Your task to perform on an android device: check out phone information Image 0: 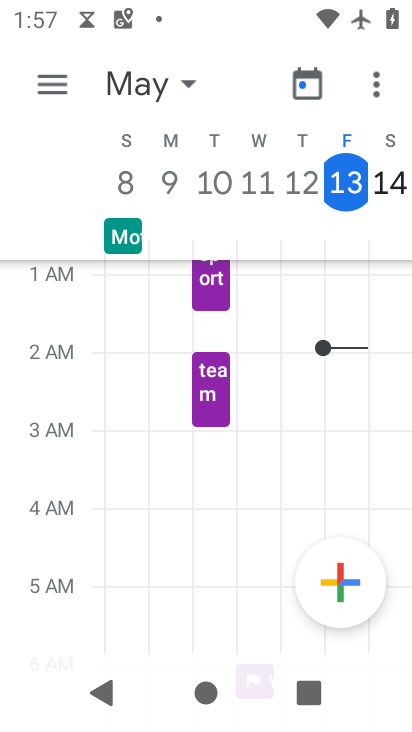
Step 0: press home button
Your task to perform on an android device: check out phone information Image 1: 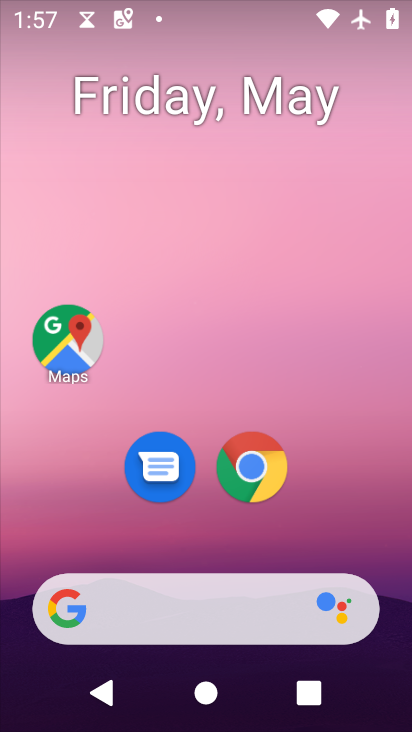
Step 1: drag from (333, 511) to (284, 122)
Your task to perform on an android device: check out phone information Image 2: 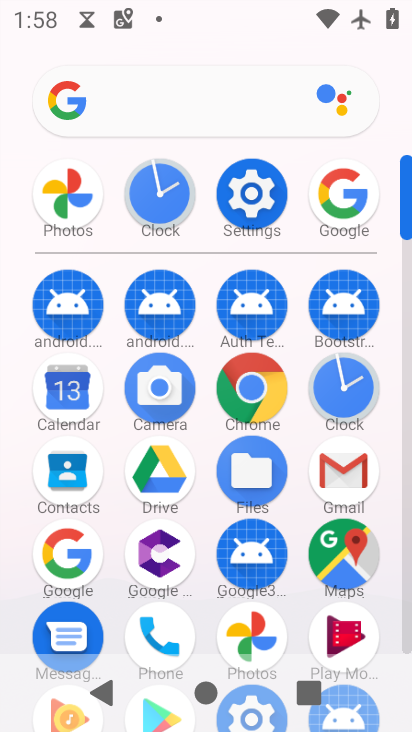
Step 2: click (255, 192)
Your task to perform on an android device: check out phone information Image 3: 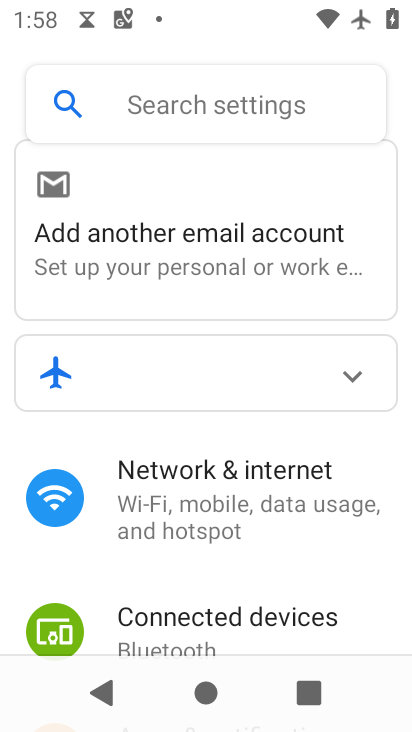
Step 3: drag from (269, 568) to (306, 279)
Your task to perform on an android device: check out phone information Image 4: 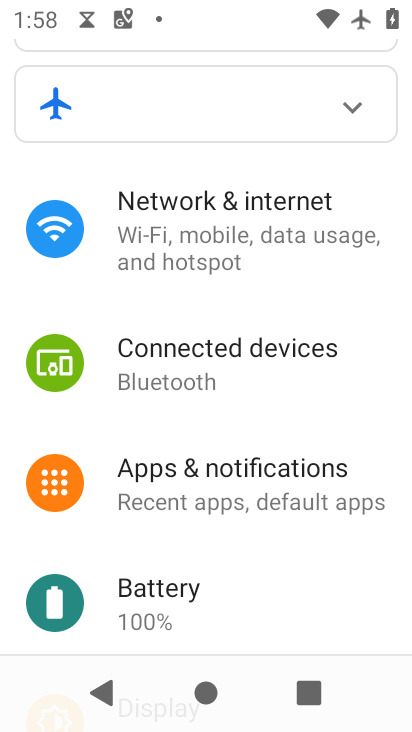
Step 4: drag from (227, 543) to (225, 379)
Your task to perform on an android device: check out phone information Image 5: 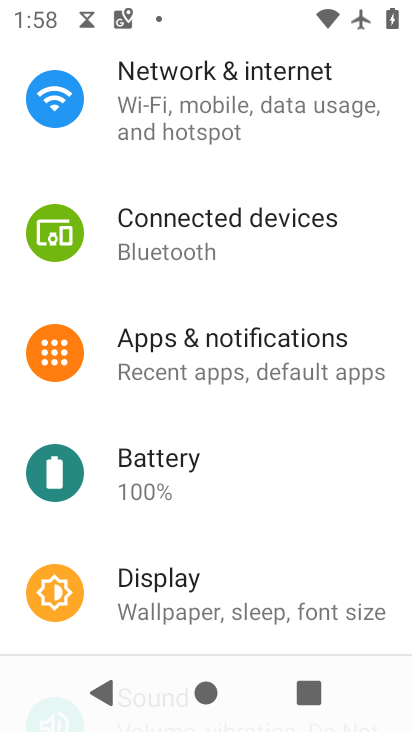
Step 5: drag from (230, 550) to (268, 379)
Your task to perform on an android device: check out phone information Image 6: 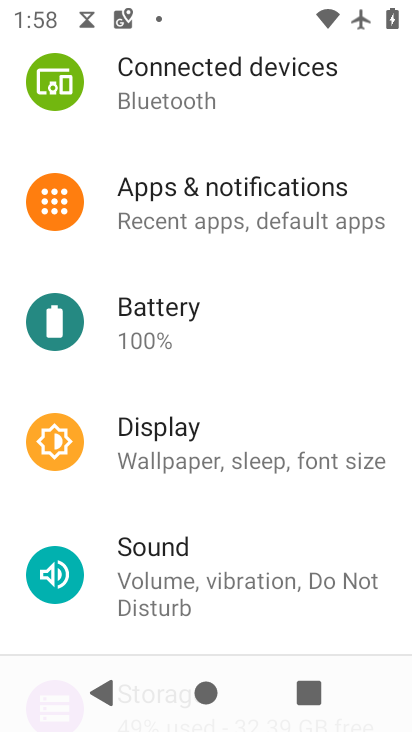
Step 6: drag from (264, 551) to (308, 337)
Your task to perform on an android device: check out phone information Image 7: 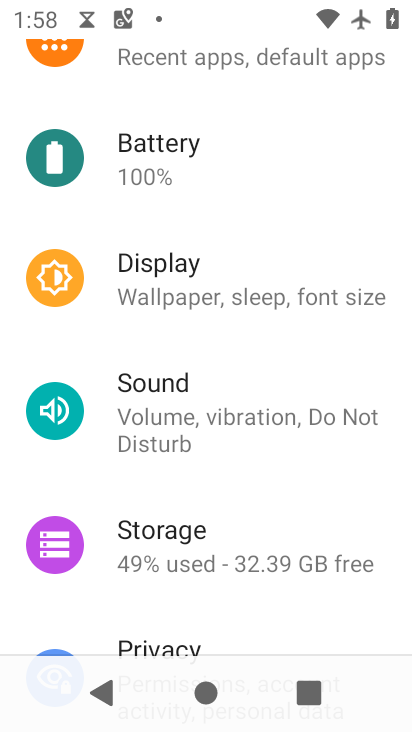
Step 7: drag from (207, 491) to (263, 319)
Your task to perform on an android device: check out phone information Image 8: 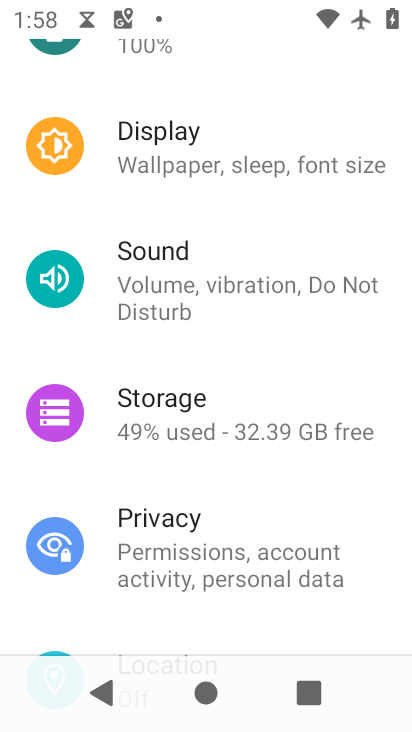
Step 8: drag from (222, 491) to (278, 324)
Your task to perform on an android device: check out phone information Image 9: 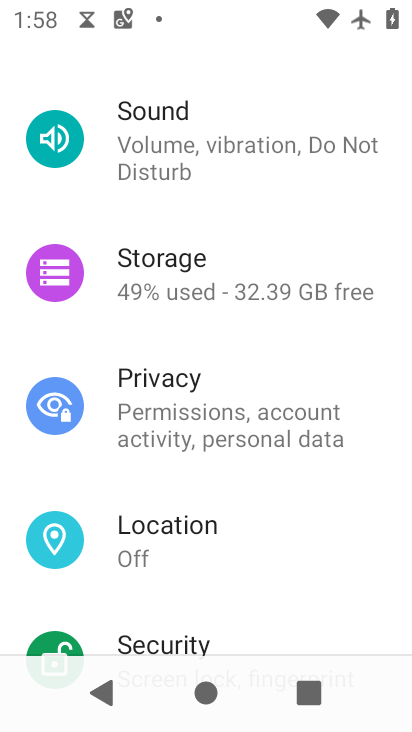
Step 9: drag from (232, 549) to (238, 307)
Your task to perform on an android device: check out phone information Image 10: 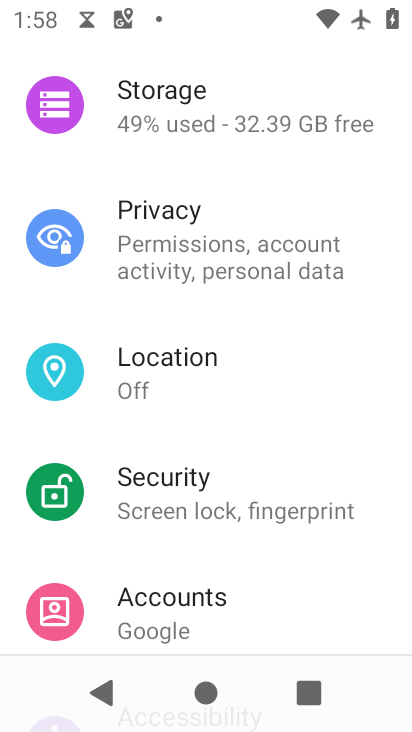
Step 10: drag from (215, 557) to (273, 346)
Your task to perform on an android device: check out phone information Image 11: 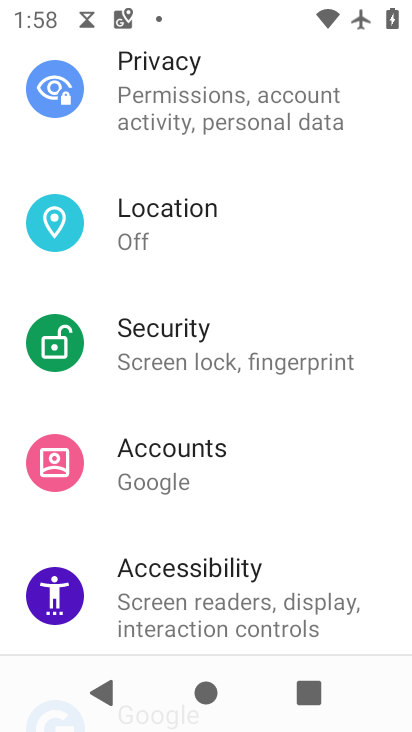
Step 11: drag from (230, 550) to (291, 407)
Your task to perform on an android device: check out phone information Image 12: 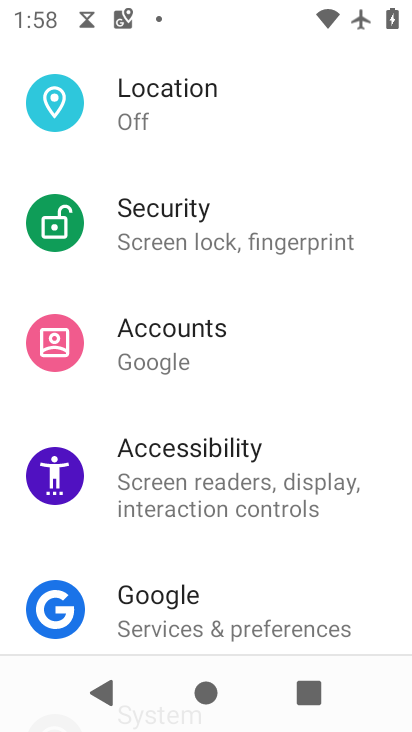
Step 12: drag from (200, 593) to (228, 403)
Your task to perform on an android device: check out phone information Image 13: 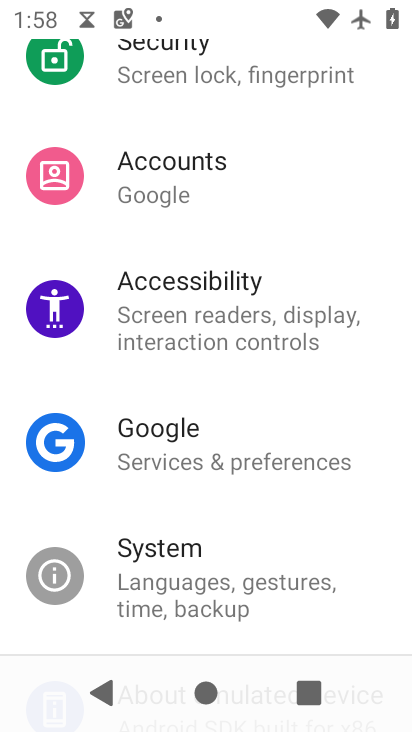
Step 13: drag from (213, 557) to (263, 462)
Your task to perform on an android device: check out phone information Image 14: 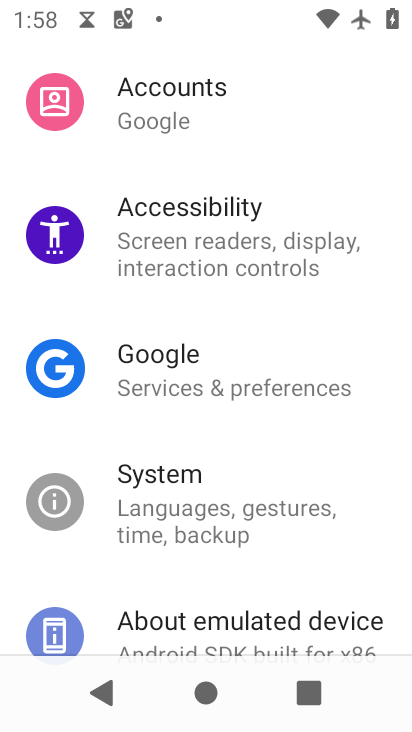
Step 14: drag from (219, 614) to (260, 477)
Your task to perform on an android device: check out phone information Image 15: 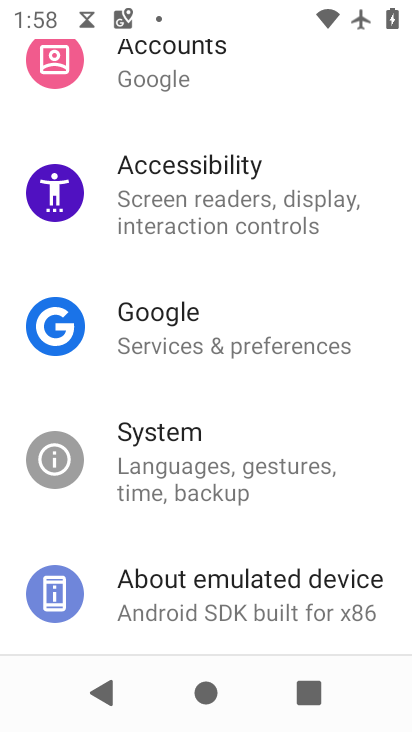
Step 15: click (220, 578)
Your task to perform on an android device: check out phone information Image 16: 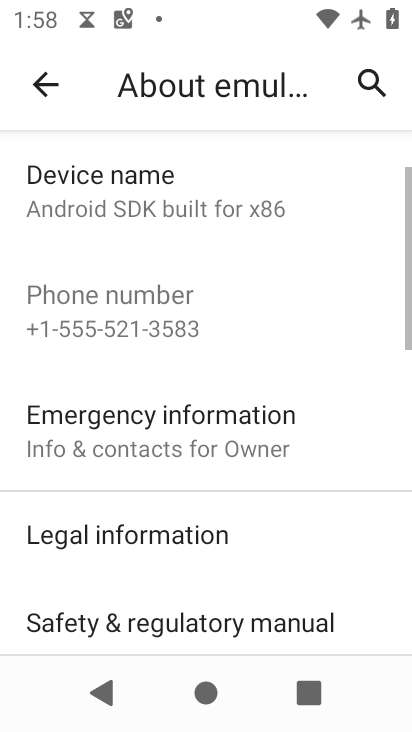
Step 16: task complete